Your task to perform on an android device: Show me popular games on the Play Store Image 0: 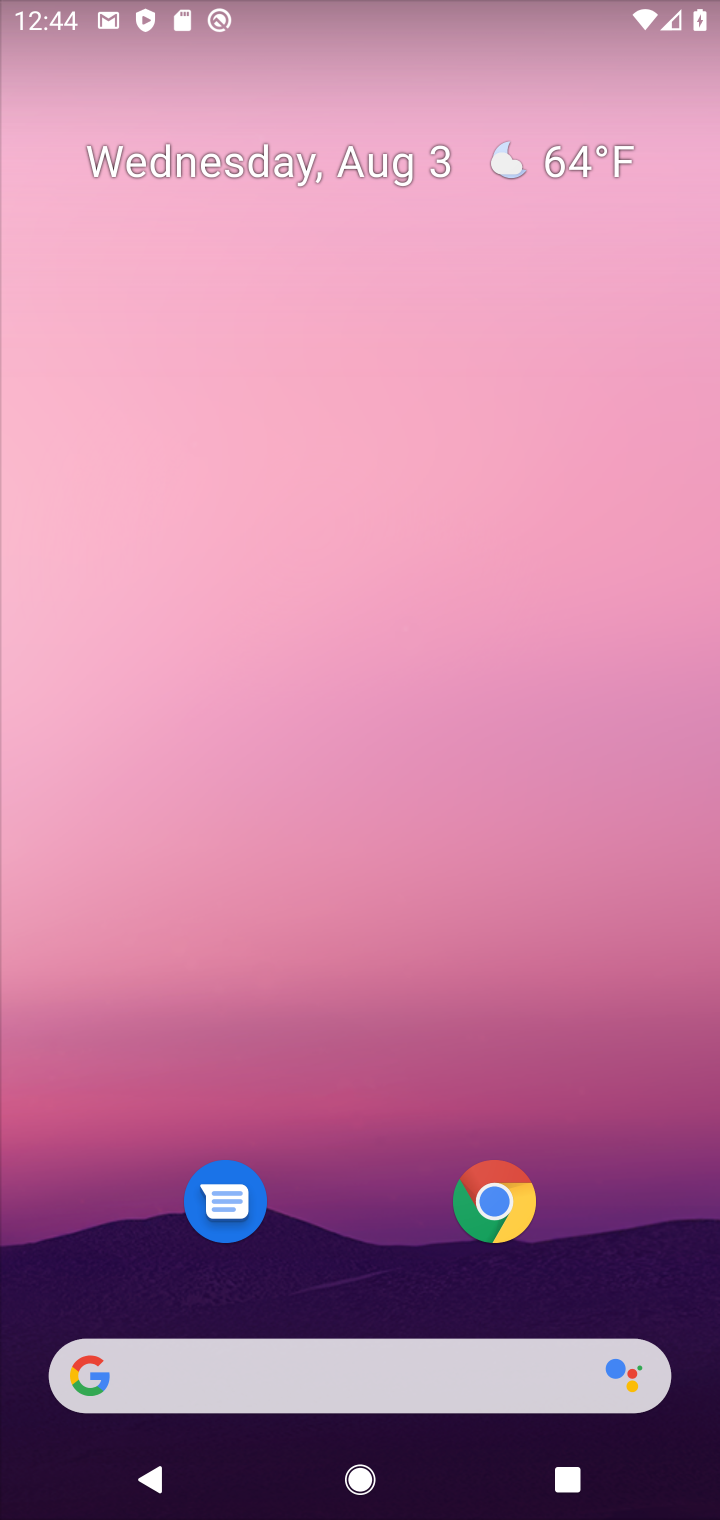
Step 0: drag from (332, 1370) to (623, 179)
Your task to perform on an android device: Show me popular games on the Play Store Image 1: 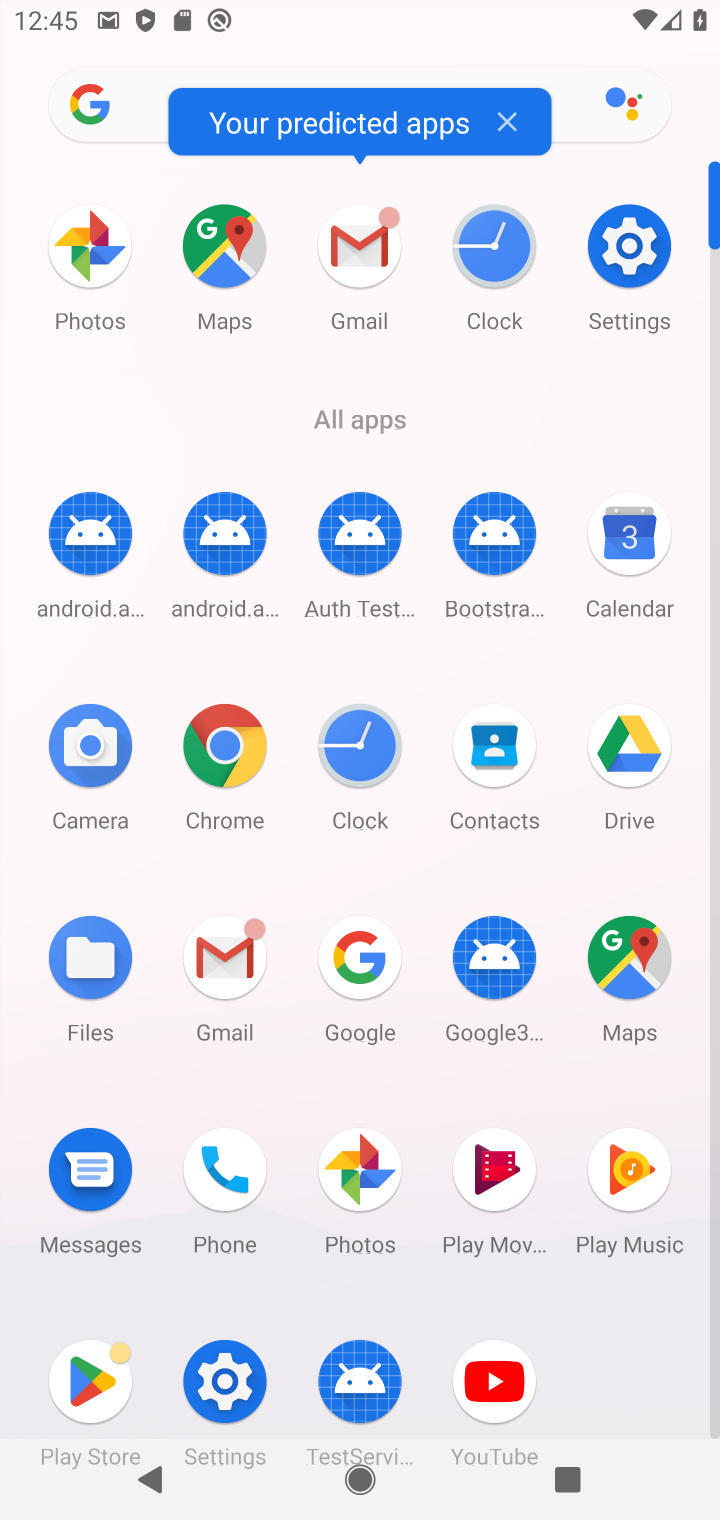
Step 1: click (86, 1374)
Your task to perform on an android device: Show me popular games on the Play Store Image 2: 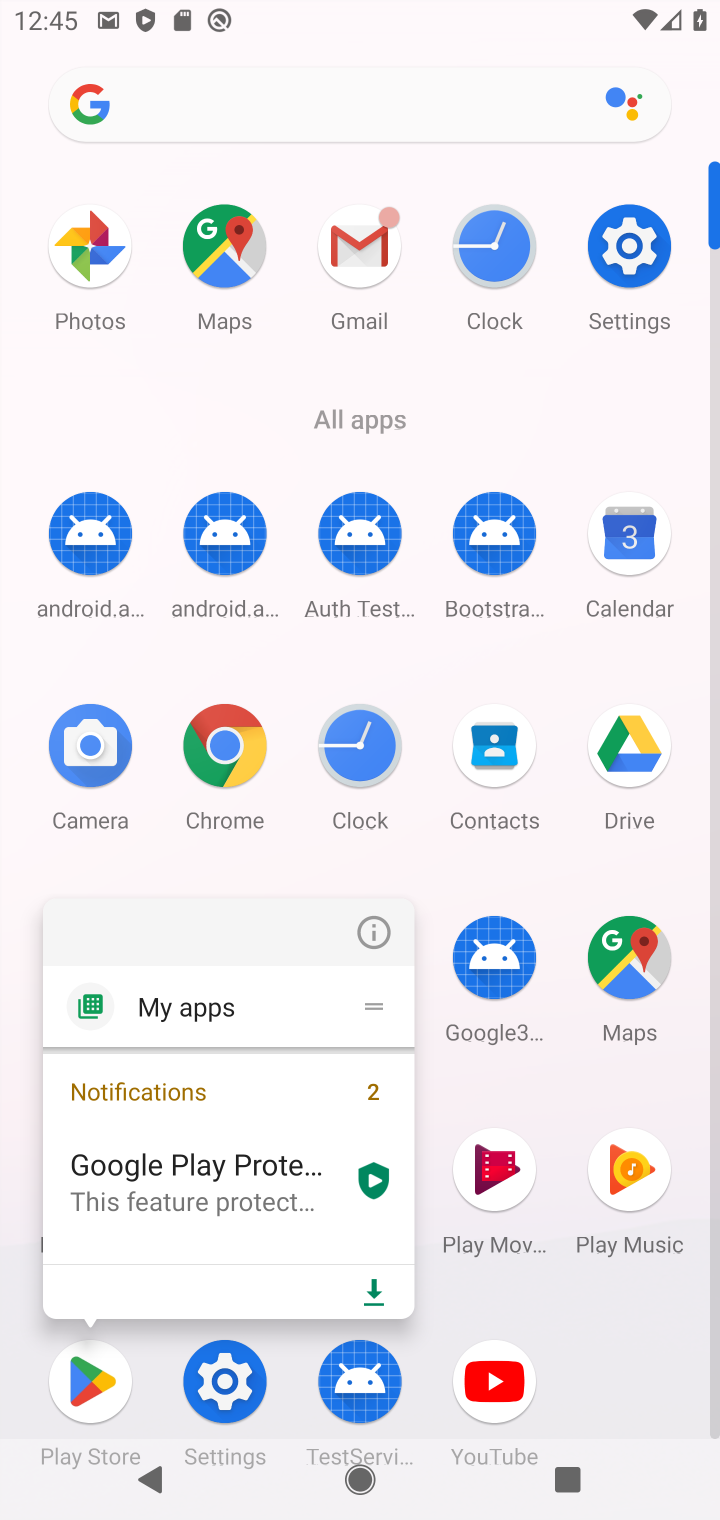
Step 2: click (86, 1374)
Your task to perform on an android device: Show me popular games on the Play Store Image 3: 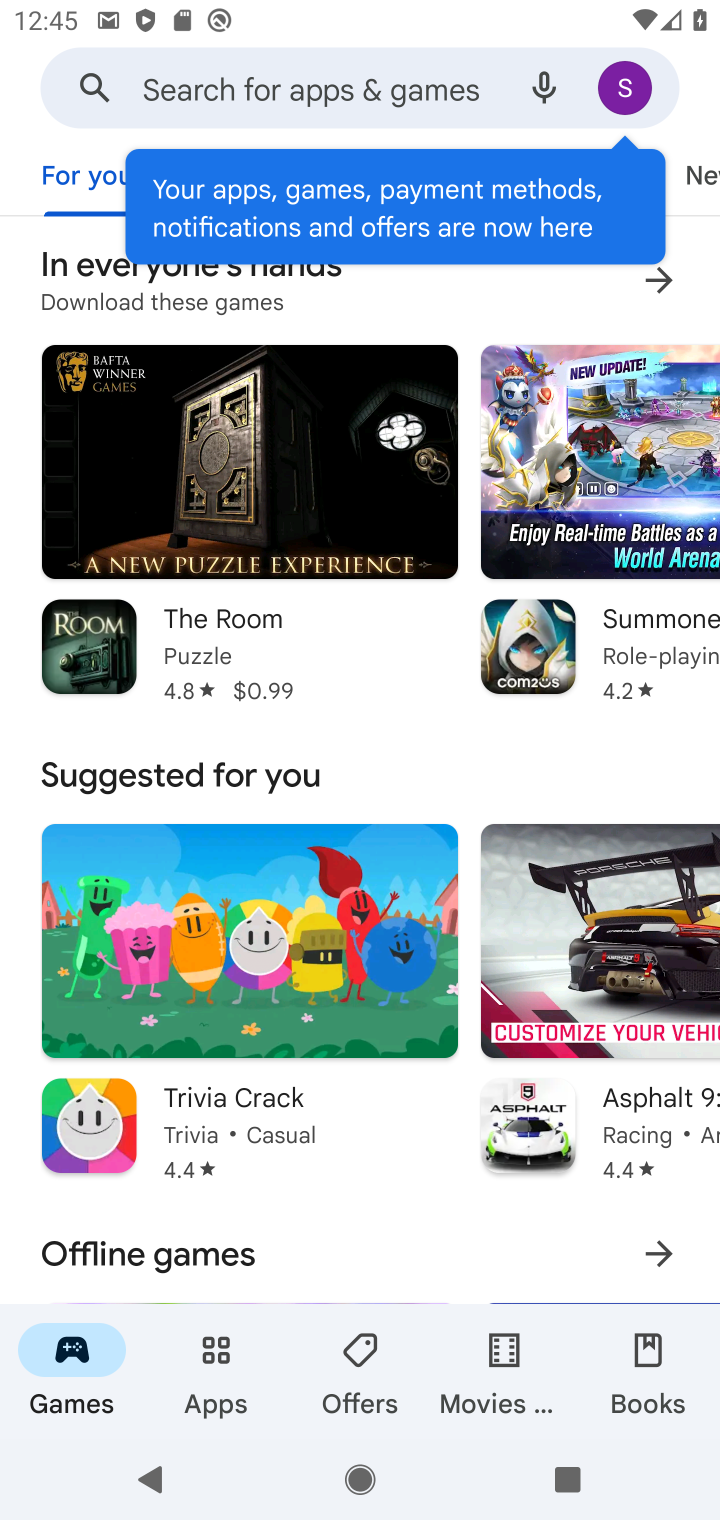
Step 3: drag from (459, 792) to (707, 252)
Your task to perform on an android device: Show me popular games on the Play Store Image 4: 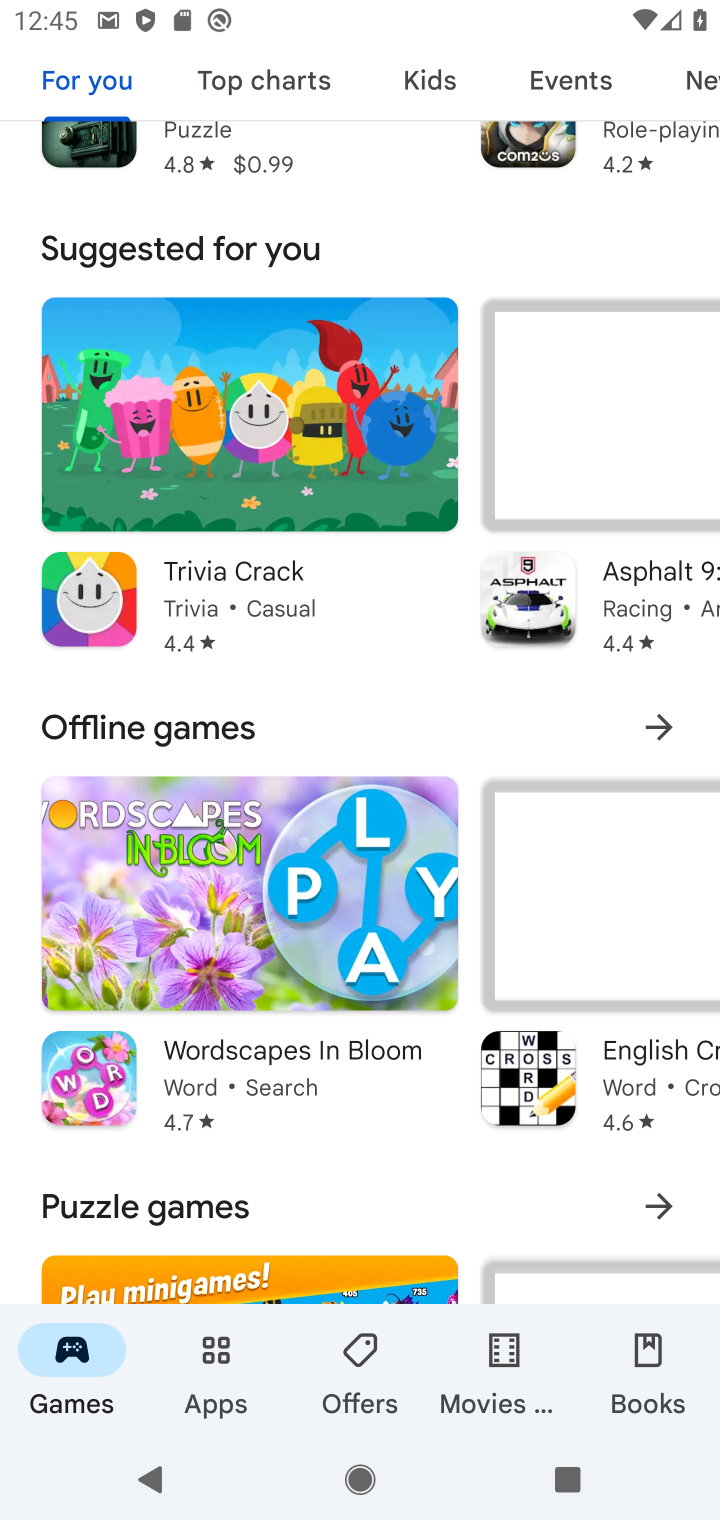
Step 4: drag from (572, 609) to (671, 137)
Your task to perform on an android device: Show me popular games on the Play Store Image 5: 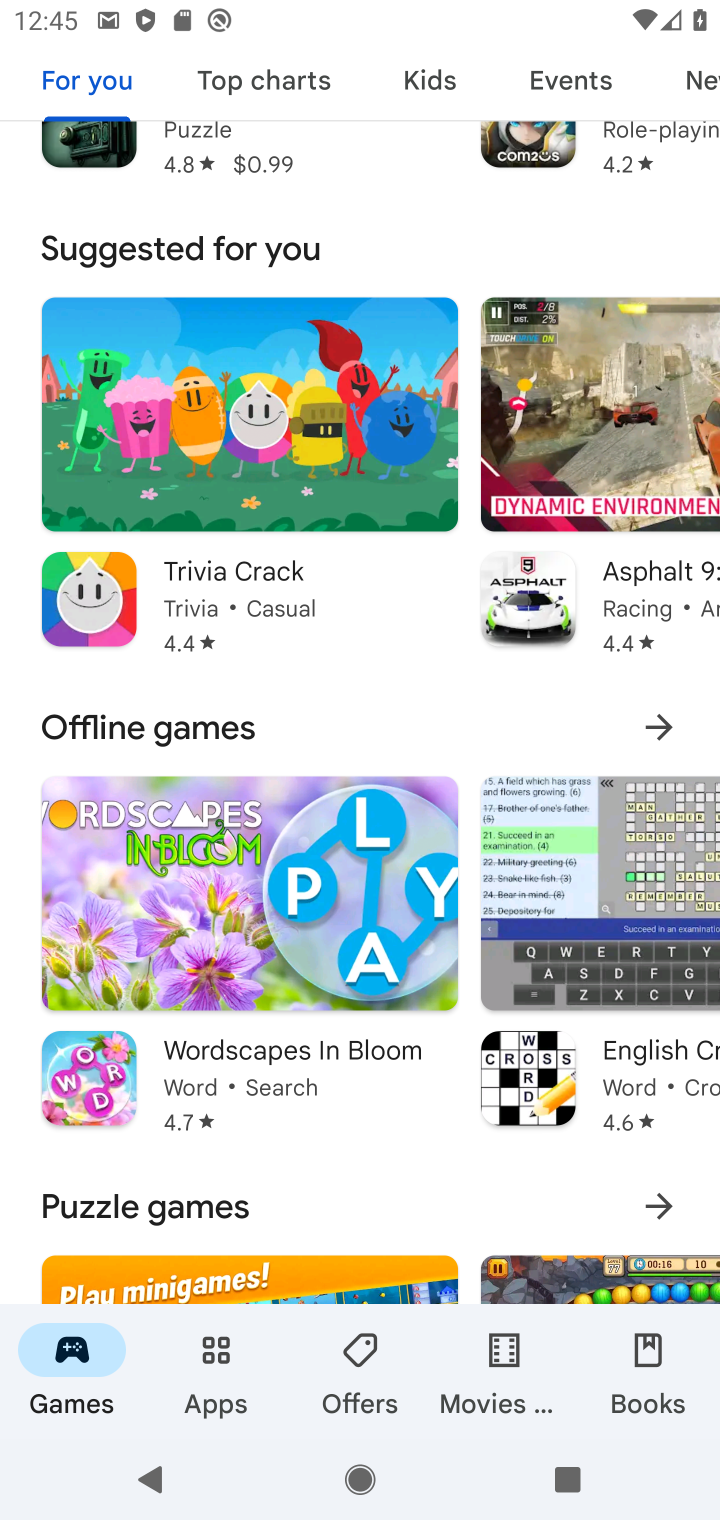
Step 5: drag from (369, 873) to (452, 57)
Your task to perform on an android device: Show me popular games on the Play Store Image 6: 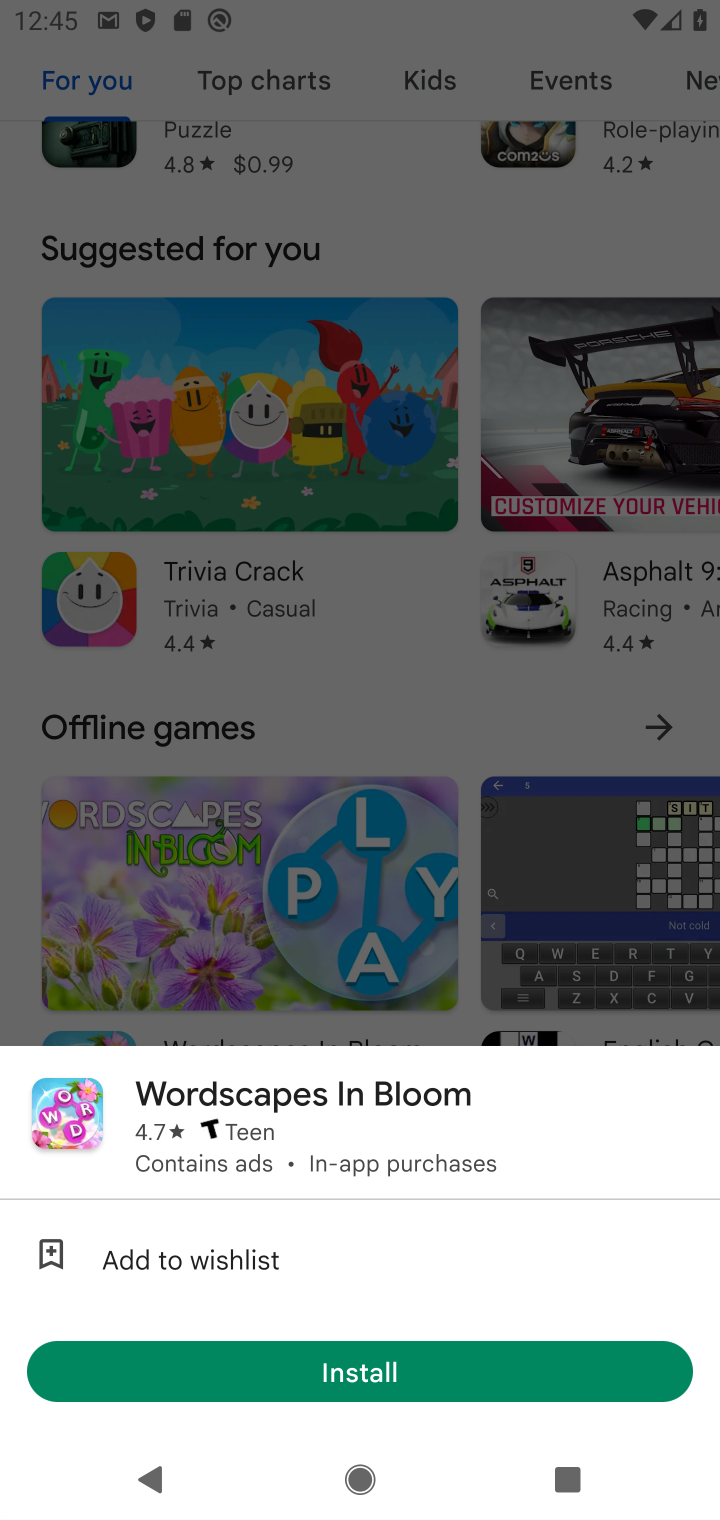
Step 6: click (517, 711)
Your task to perform on an android device: Show me popular games on the Play Store Image 7: 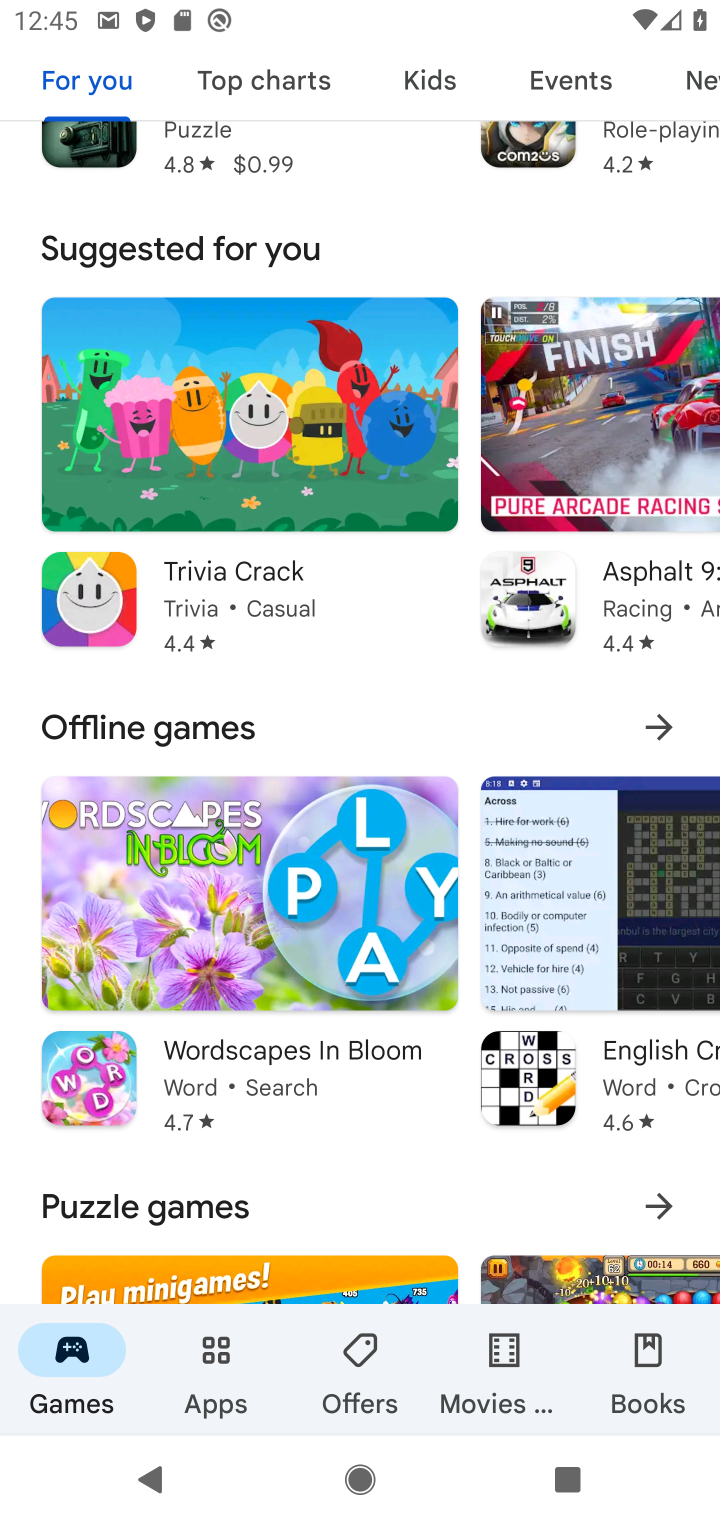
Step 7: task complete